Your task to perform on an android device: Go to calendar. Show me events next week Image 0: 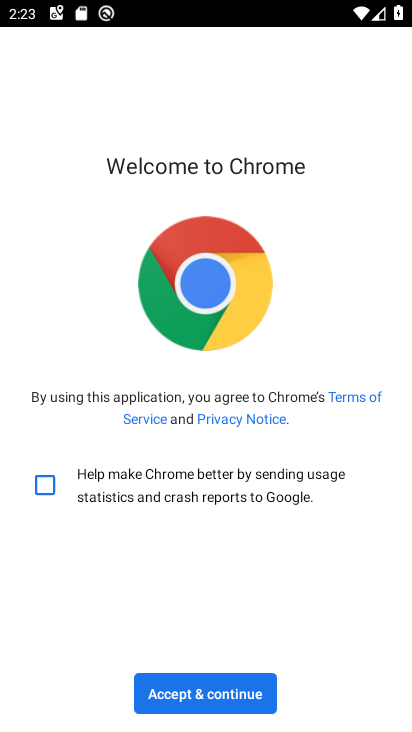
Step 0: drag from (219, 639) to (286, 1)
Your task to perform on an android device: Go to calendar. Show me events next week Image 1: 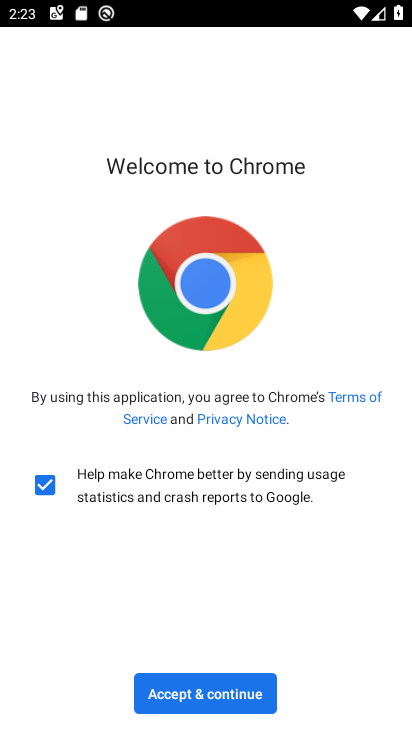
Step 1: press home button
Your task to perform on an android device: Go to calendar. Show me events next week Image 2: 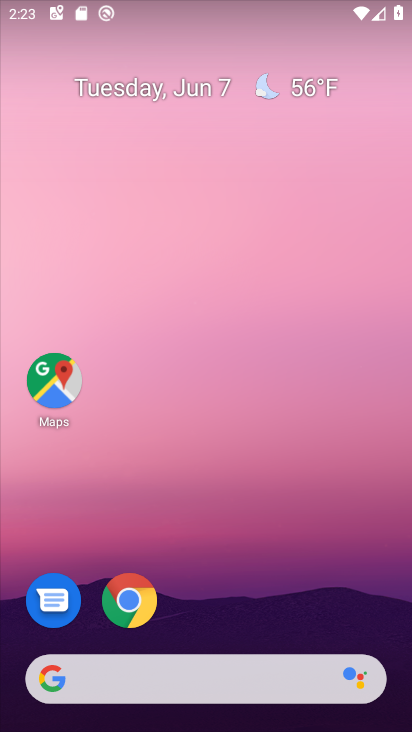
Step 2: drag from (192, 621) to (270, 183)
Your task to perform on an android device: Go to calendar. Show me events next week Image 3: 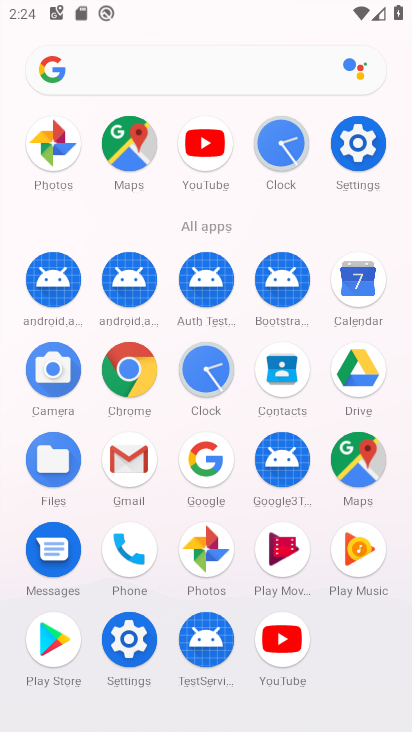
Step 3: click (372, 300)
Your task to perform on an android device: Go to calendar. Show me events next week Image 4: 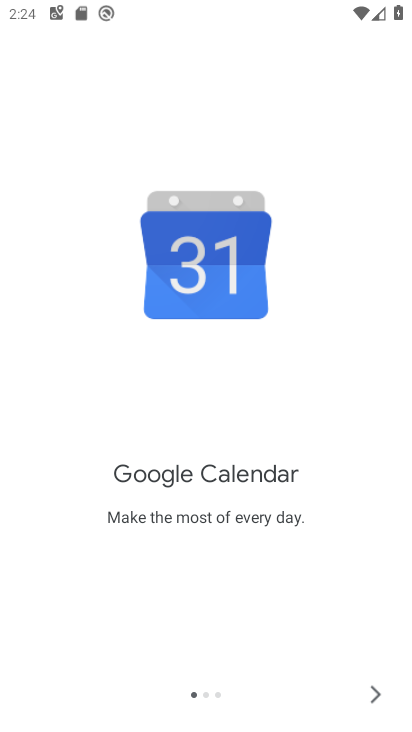
Step 4: click (368, 690)
Your task to perform on an android device: Go to calendar. Show me events next week Image 5: 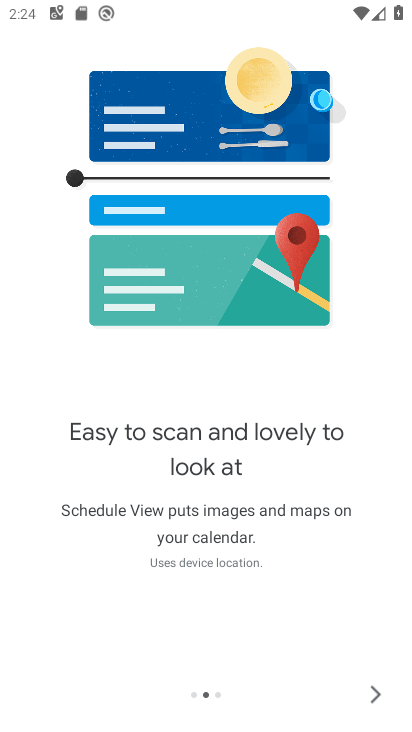
Step 5: click (384, 694)
Your task to perform on an android device: Go to calendar. Show me events next week Image 6: 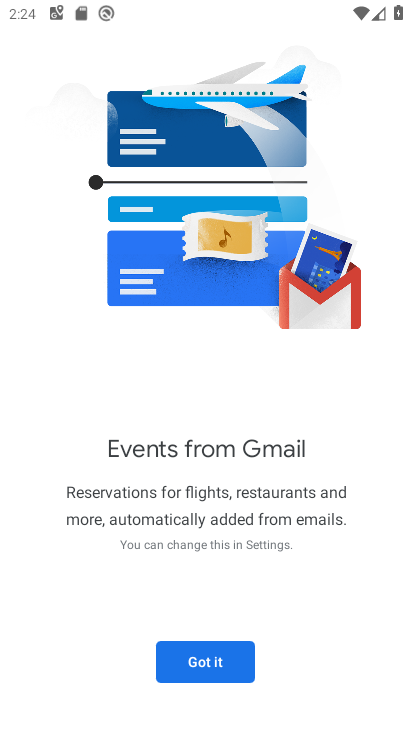
Step 6: click (226, 664)
Your task to perform on an android device: Go to calendar. Show me events next week Image 7: 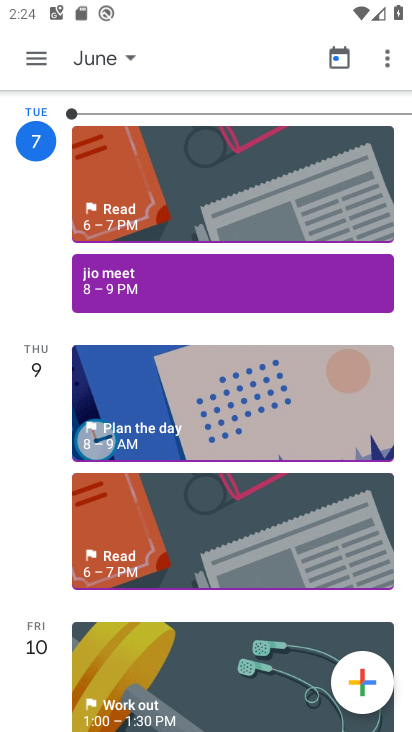
Step 7: click (34, 55)
Your task to perform on an android device: Go to calendar. Show me events next week Image 8: 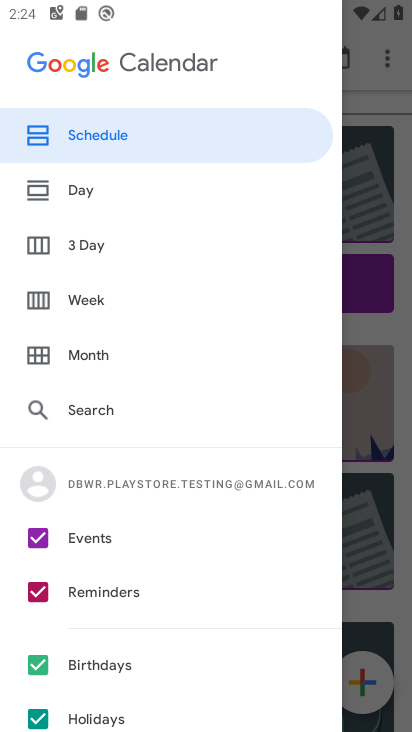
Step 8: click (99, 591)
Your task to perform on an android device: Go to calendar. Show me events next week Image 9: 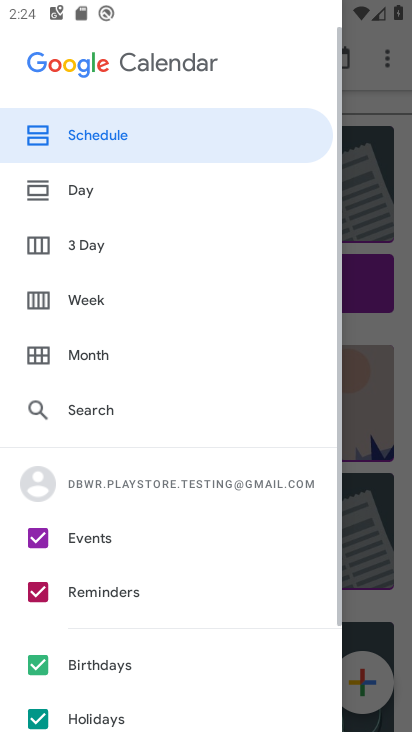
Step 9: click (100, 660)
Your task to perform on an android device: Go to calendar. Show me events next week Image 10: 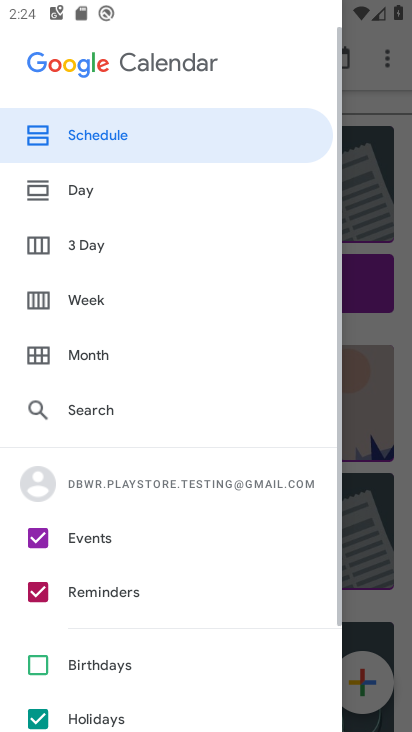
Step 10: drag from (100, 660) to (112, 516)
Your task to perform on an android device: Go to calendar. Show me events next week Image 11: 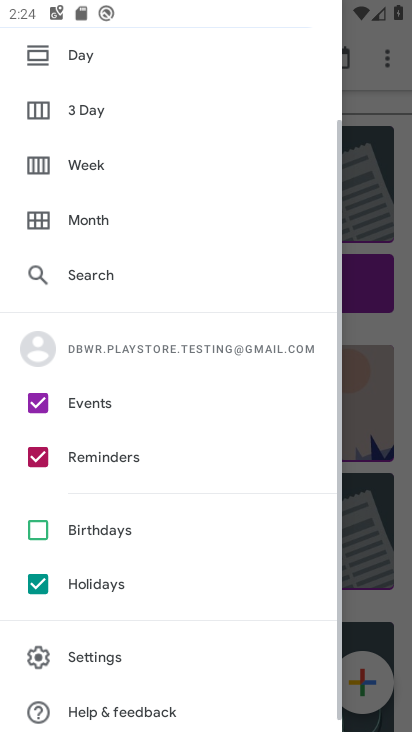
Step 11: click (45, 585)
Your task to perform on an android device: Go to calendar. Show me events next week Image 12: 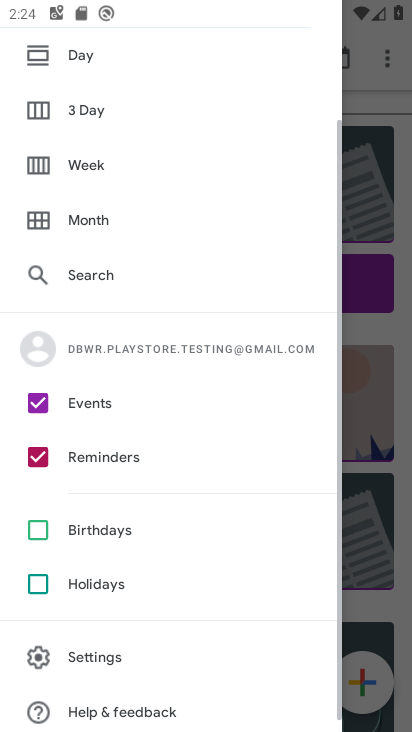
Step 12: click (42, 466)
Your task to perform on an android device: Go to calendar. Show me events next week Image 13: 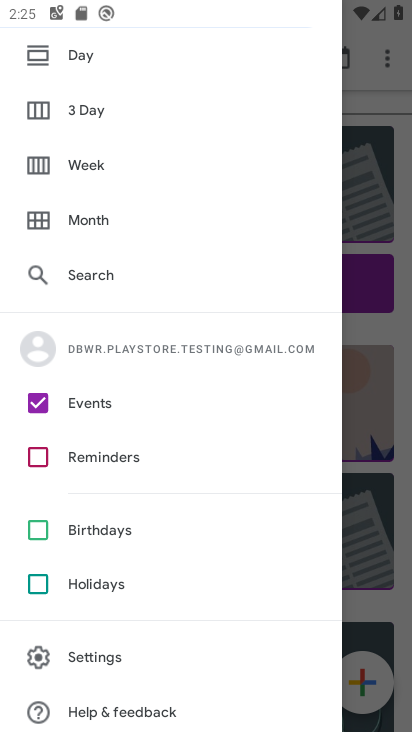
Step 13: click (86, 164)
Your task to perform on an android device: Go to calendar. Show me events next week Image 14: 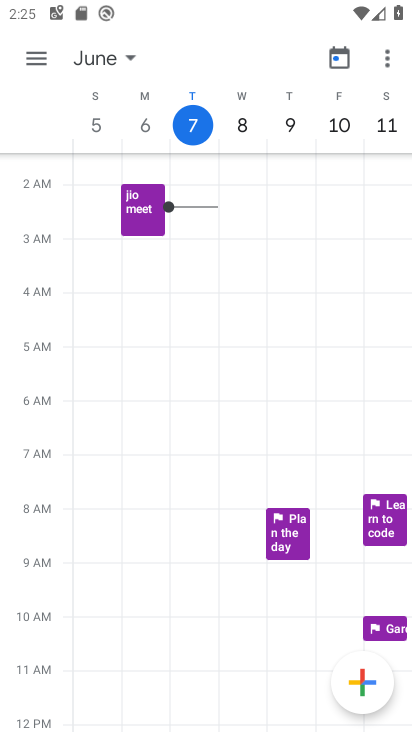
Step 14: task complete